Your task to perform on an android device: Search for sushi restaurants on Maps Image 0: 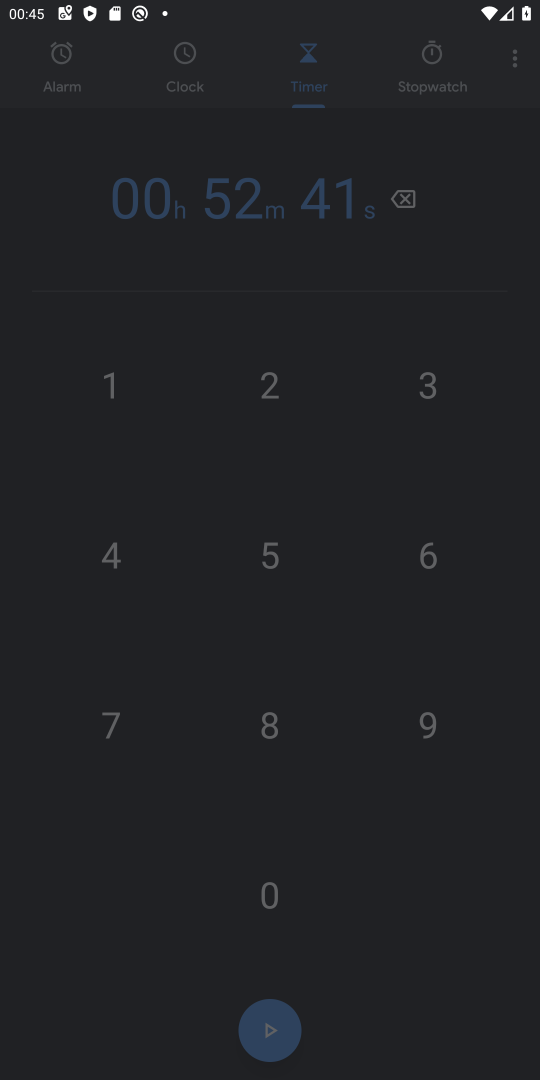
Step 0: press home button
Your task to perform on an android device: Search for sushi restaurants on Maps Image 1: 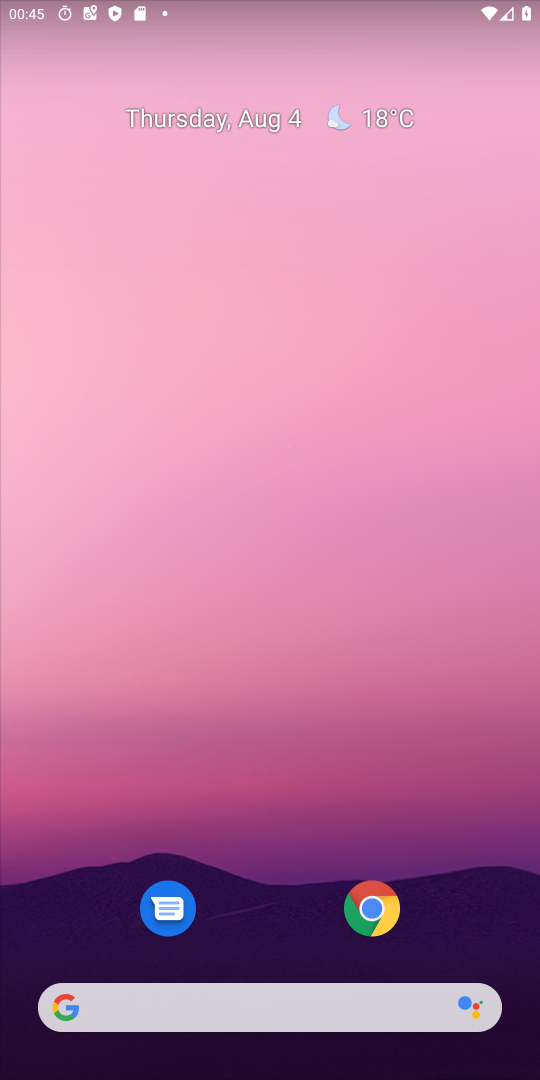
Step 1: drag from (366, 1027) to (243, 174)
Your task to perform on an android device: Search for sushi restaurants on Maps Image 2: 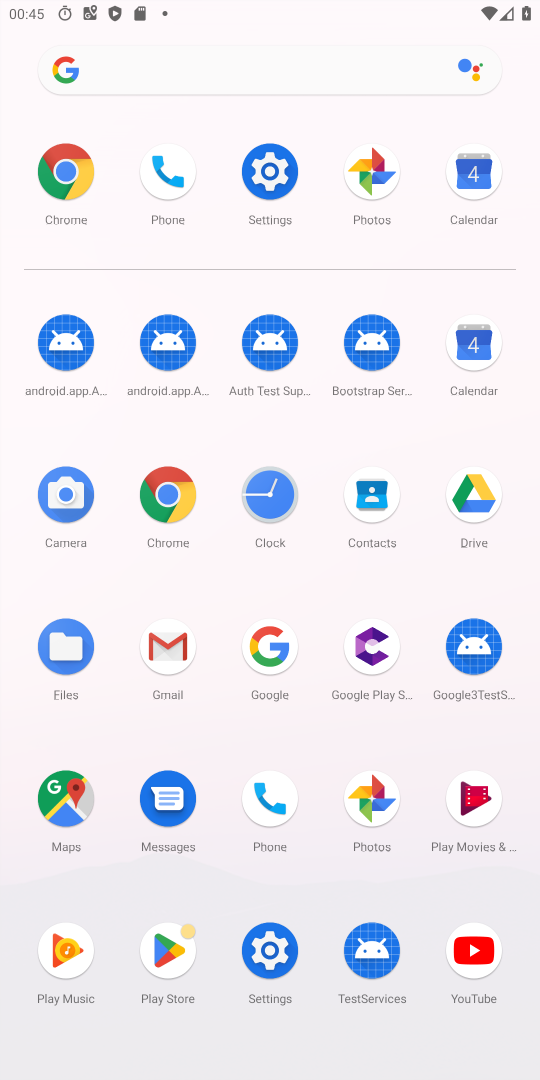
Step 2: click (71, 804)
Your task to perform on an android device: Search for sushi restaurants on Maps Image 3: 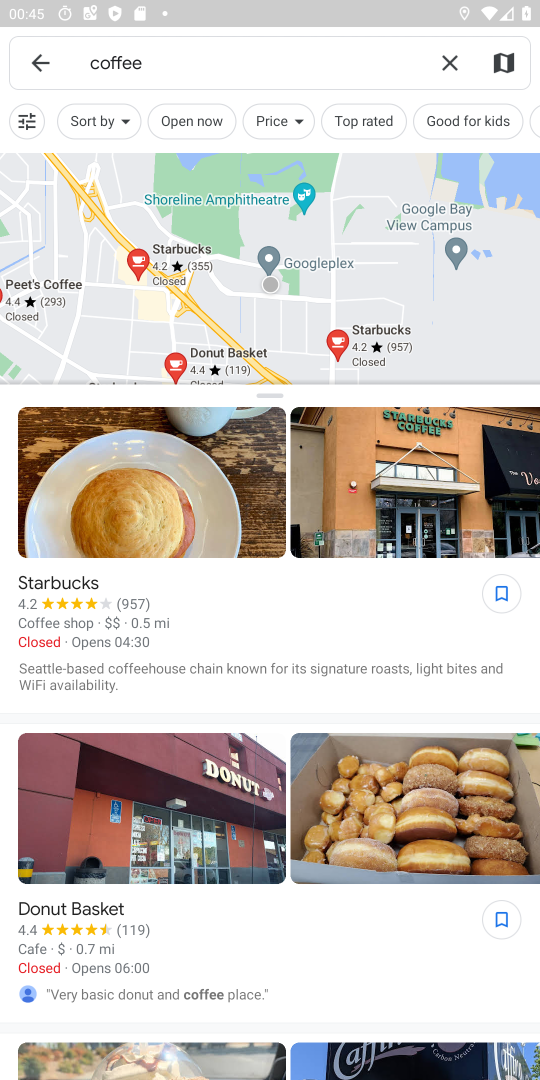
Step 3: click (444, 60)
Your task to perform on an android device: Search for sushi restaurants on Maps Image 4: 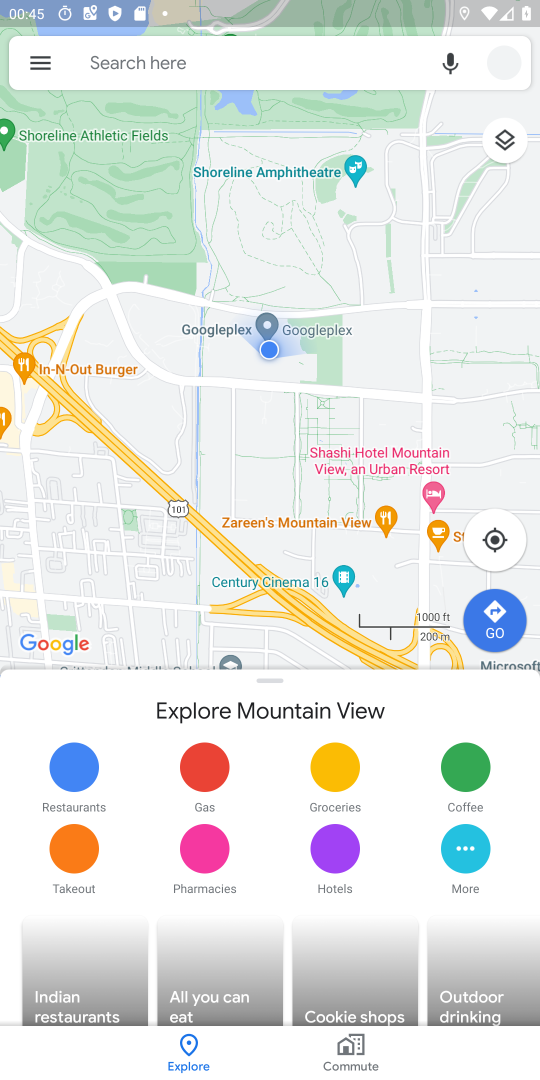
Step 4: click (156, 78)
Your task to perform on an android device: Search for sushi restaurants on Maps Image 5: 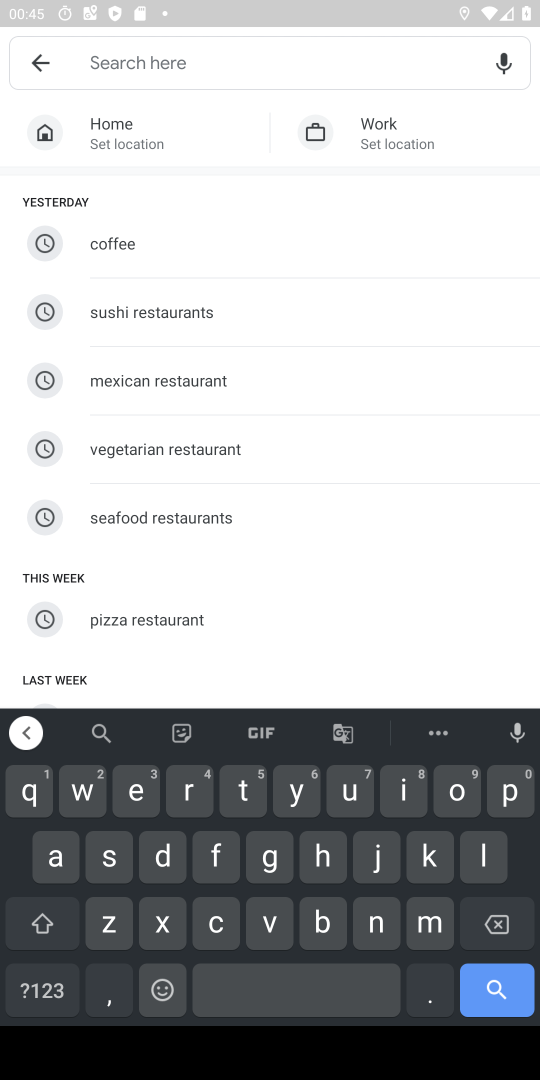
Step 5: click (148, 317)
Your task to perform on an android device: Search for sushi restaurants on Maps Image 6: 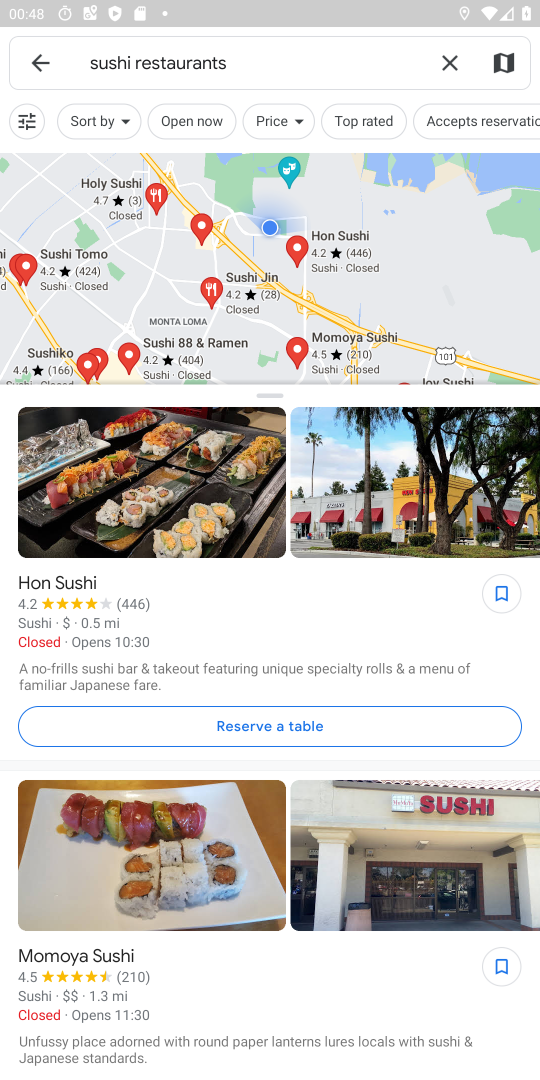
Step 6: task complete